Your task to perform on an android device: change the clock display to show seconds Image 0: 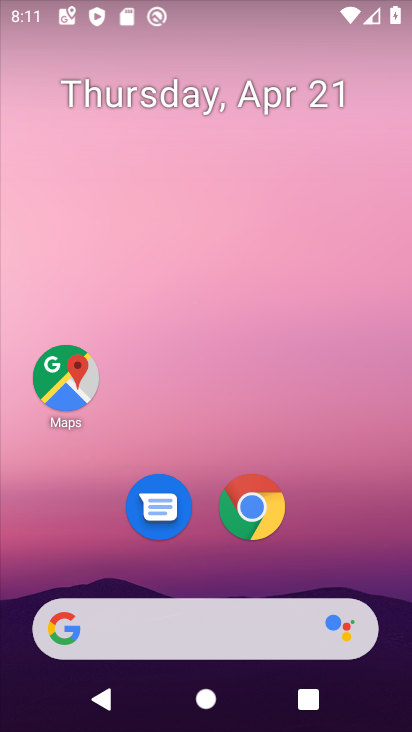
Step 0: drag from (386, 543) to (352, 135)
Your task to perform on an android device: change the clock display to show seconds Image 1: 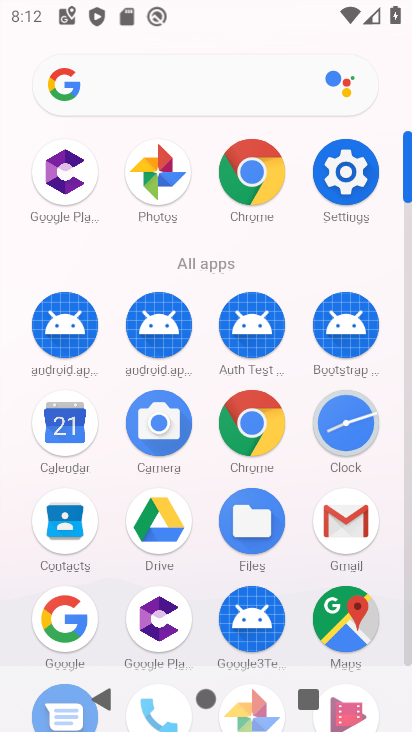
Step 1: click (356, 183)
Your task to perform on an android device: change the clock display to show seconds Image 2: 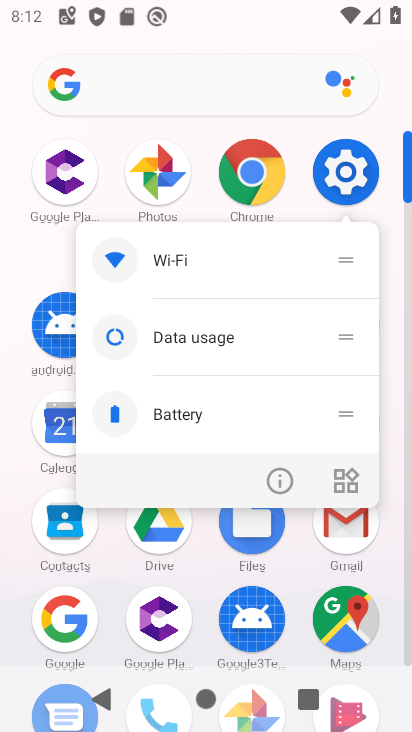
Step 2: click (396, 394)
Your task to perform on an android device: change the clock display to show seconds Image 3: 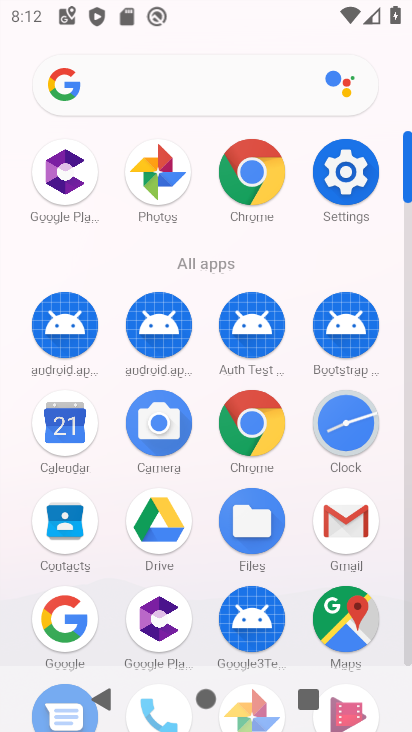
Step 3: click (362, 412)
Your task to perform on an android device: change the clock display to show seconds Image 4: 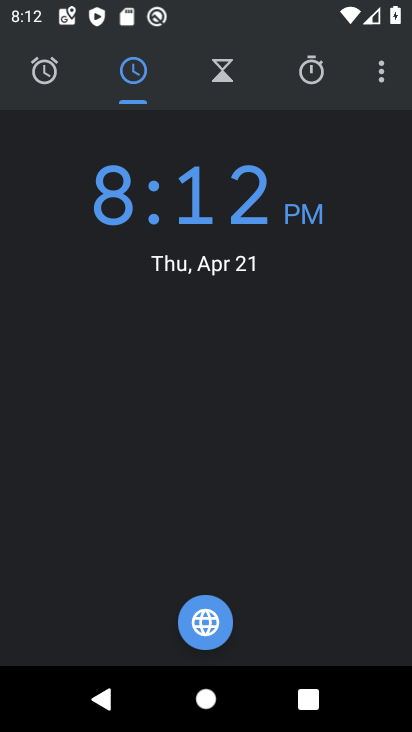
Step 4: click (388, 89)
Your task to perform on an android device: change the clock display to show seconds Image 5: 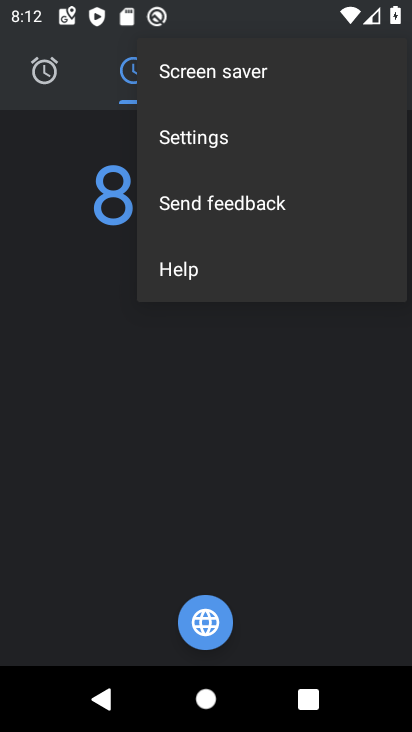
Step 5: click (215, 153)
Your task to perform on an android device: change the clock display to show seconds Image 6: 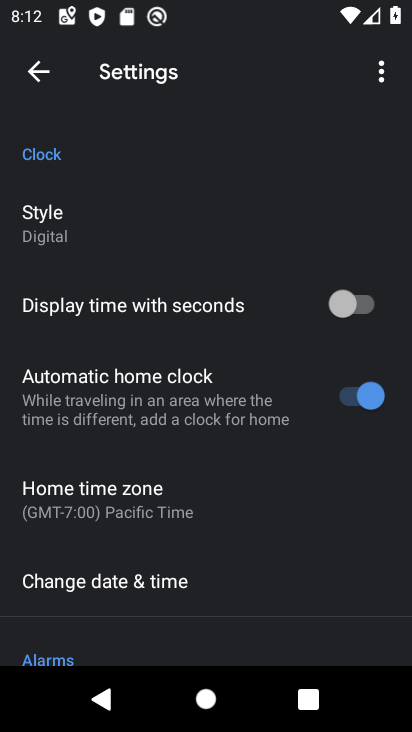
Step 6: click (362, 303)
Your task to perform on an android device: change the clock display to show seconds Image 7: 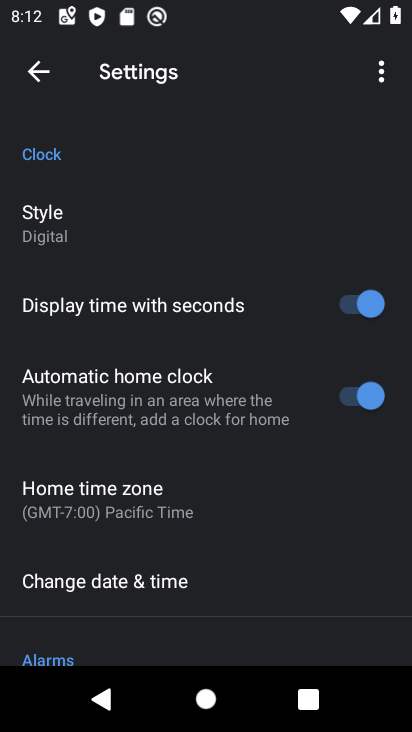
Step 7: task complete